Your task to perform on an android device: turn off translation in the chrome app Image 0: 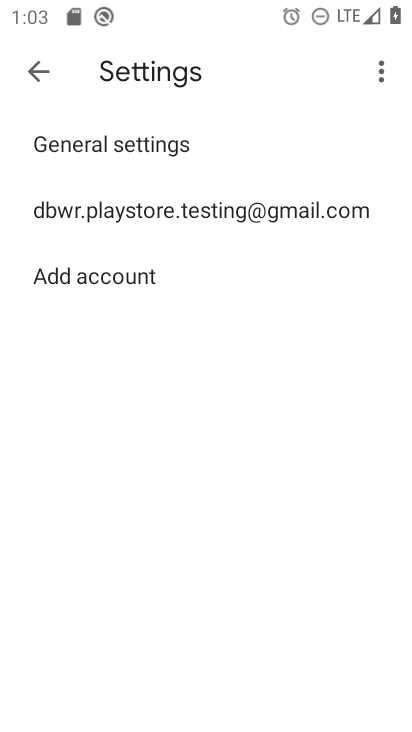
Step 0: press home button
Your task to perform on an android device: turn off translation in the chrome app Image 1: 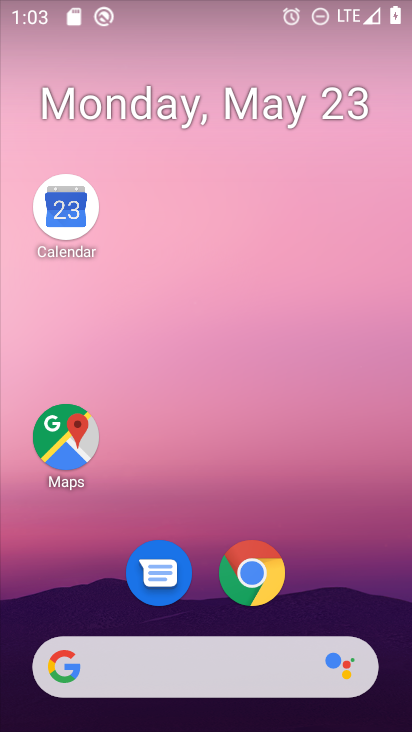
Step 1: click (250, 568)
Your task to perform on an android device: turn off translation in the chrome app Image 2: 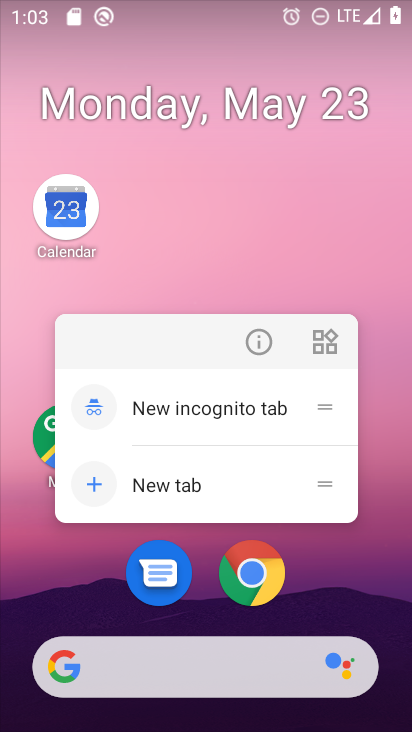
Step 2: click (232, 577)
Your task to perform on an android device: turn off translation in the chrome app Image 3: 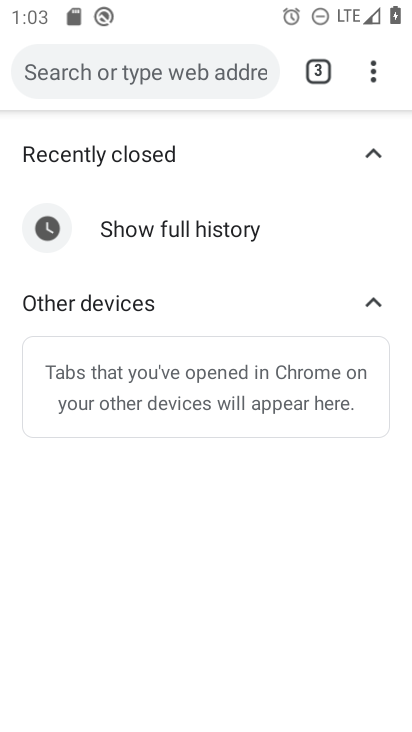
Step 3: click (373, 78)
Your task to perform on an android device: turn off translation in the chrome app Image 4: 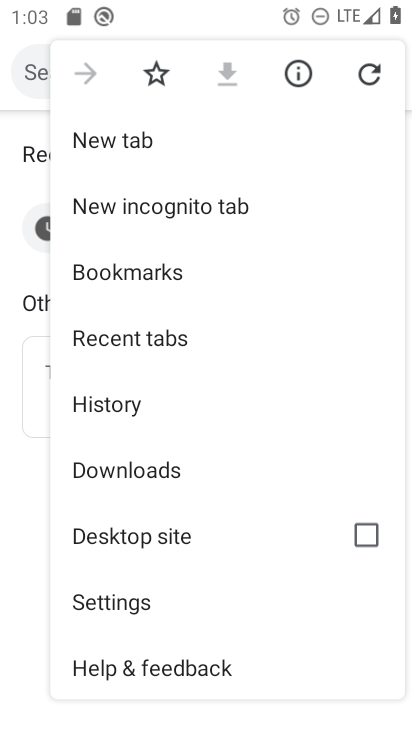
Step 4: click (225, 619)
Your task to perform on an android device: turn off translation in the chrome app Image 5: 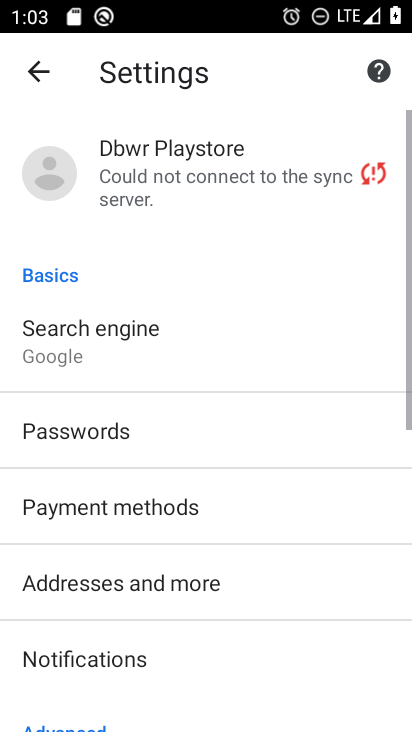
Step 5: drag from (197, 649) to (216, 233)
Your task to perform on an android device: turn off translation in the chrome app Image 6: 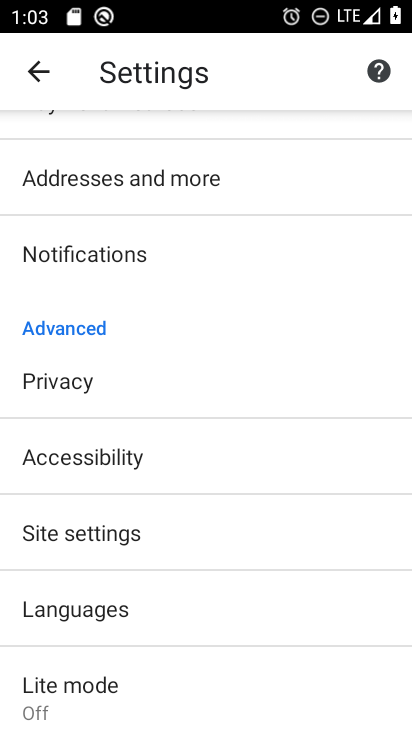
Step 6: click (136, 616)
Your task to perform on an android device: turn off translation in the chrome app Image 7: 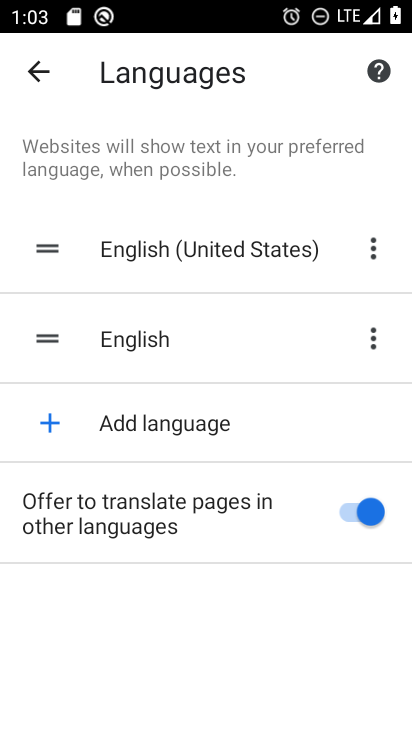
Step 7: click (377, 501)
Your task to perform on an android device: turn off translation in the chrome app Image 8: 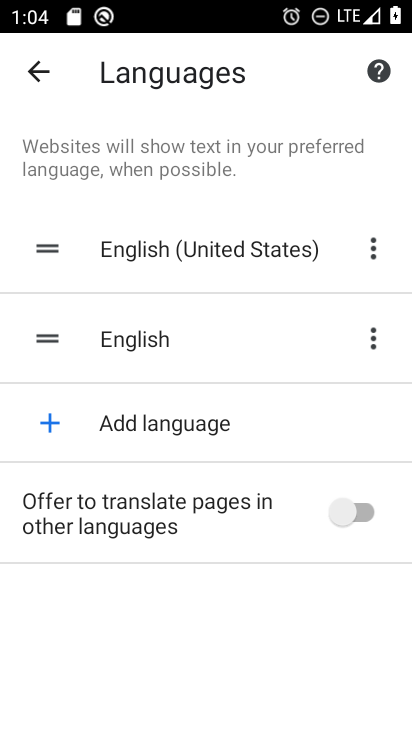
Step 8: task complete